Your task to perform on an android device: turn on sleep mode Image 0: 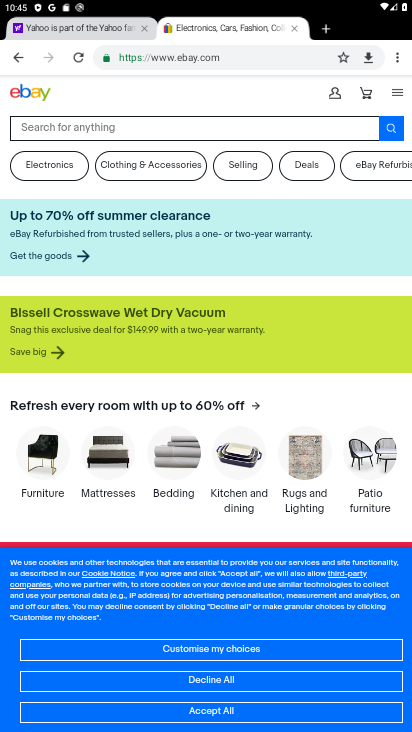
Step 0: press home button
Your task to perform on an android device: turn on sleep mode Image 1: 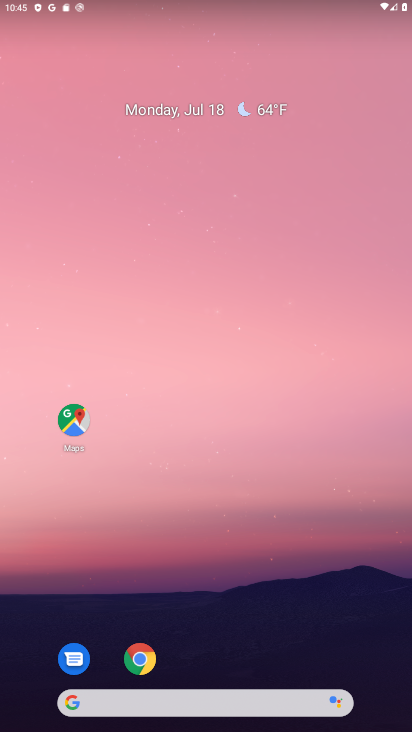
Step 1: drag from (203, 691) to (196, 115)
Your task to perform on an android device: turn on sleep mode Image 2: 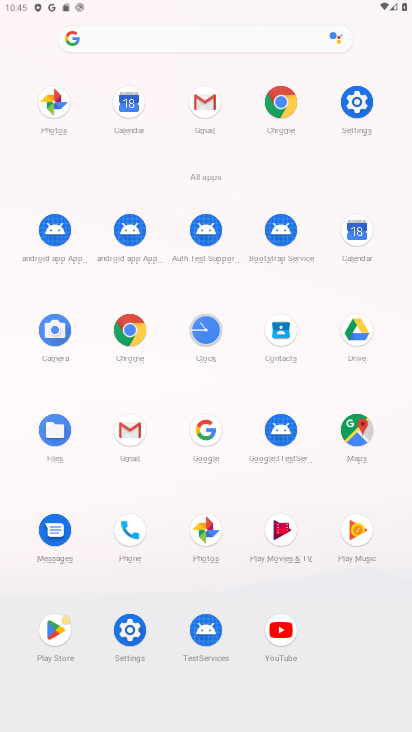
Step 2: click (133, 636)
Your task to perform on an android device: turn on sleep mode Image 3: 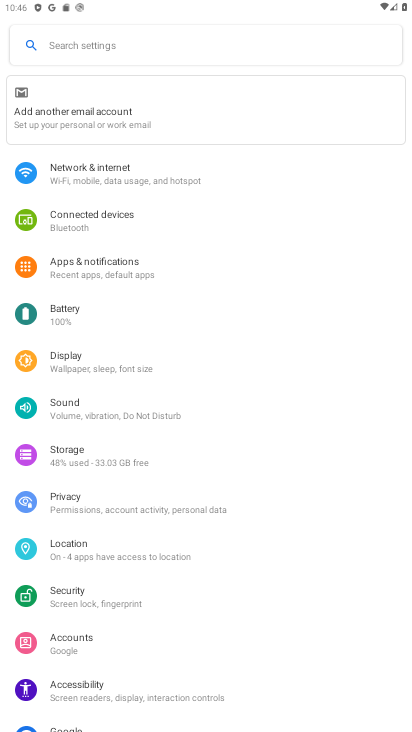
Step 3: click (42, 356)
Your task to perform on an android device: turn on sleep mode Image 4: 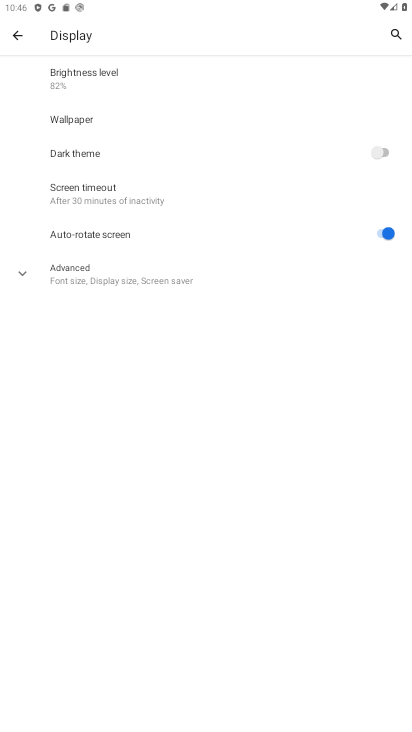
Step 4: task complete